Your task to perform on an android device: Open the web browser Image 0: 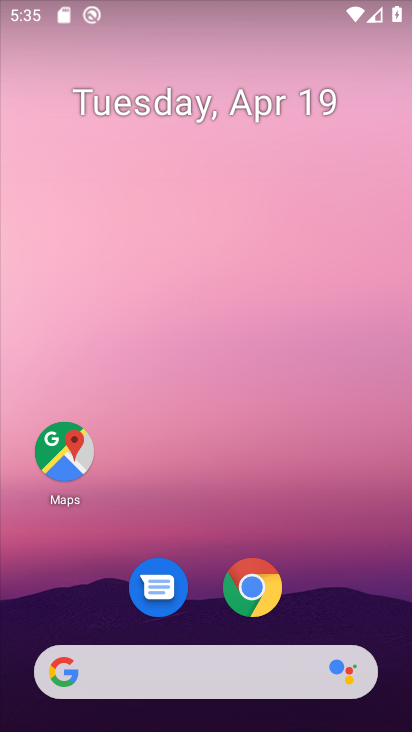
Step 0: click (257, 603)
Your task to perform on an android device: Open the web browser Image 1: 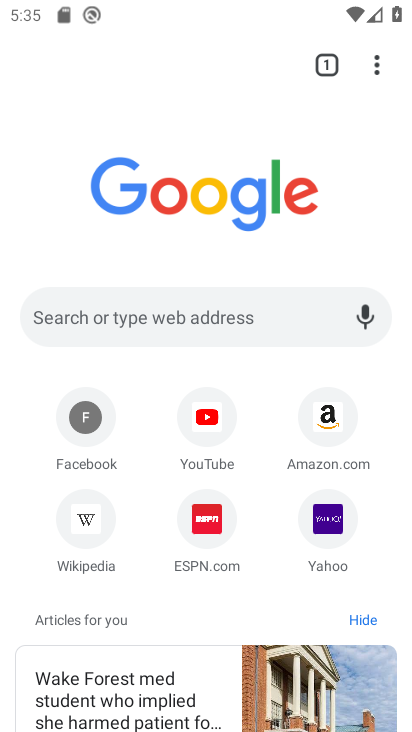
Step 1: task complete